Your task to perform on an android device: find photos in the google photos app Image 0: 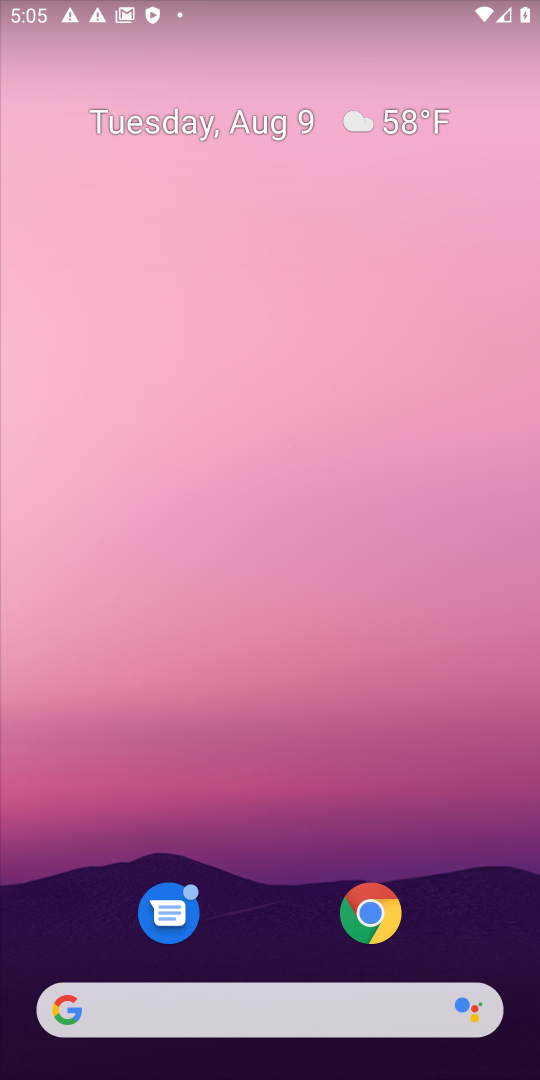
Step 0: drag from (299, 821) to (257, 271)
Your task to perform on an android device: find photos in the google photos app Image 1: 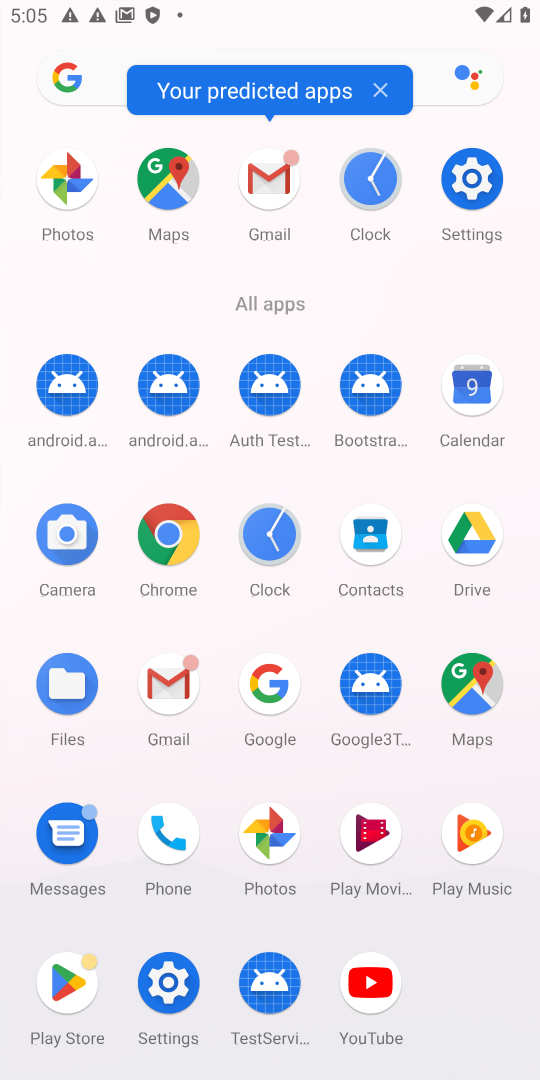
Step 1: click (257, 835)
Your task to perform on an android device: find photos in the google photos app Image 2: 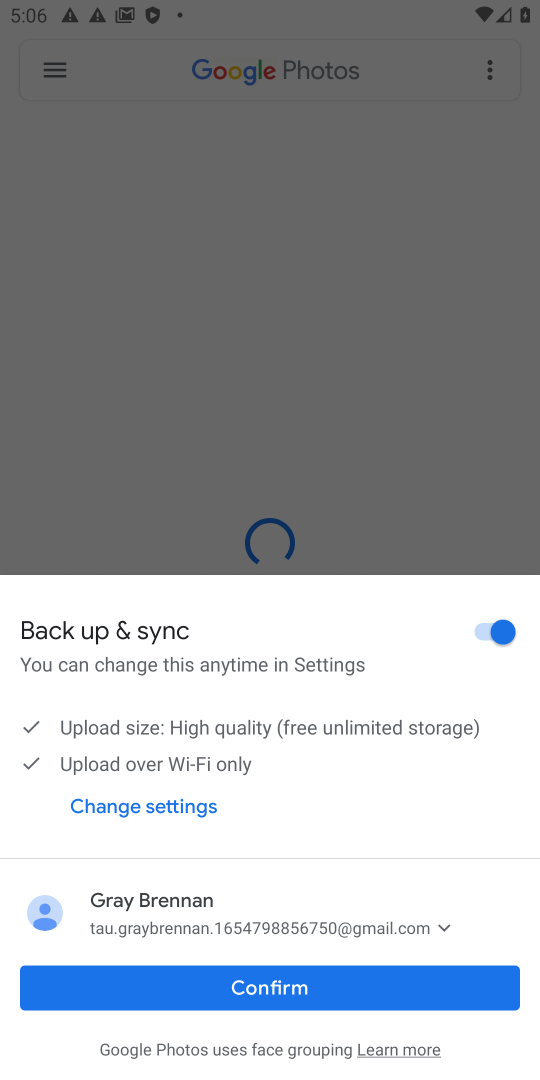
Step 2: click (235, 992)
Your task to perform on an android device: find photos in the google photos app Image 3: 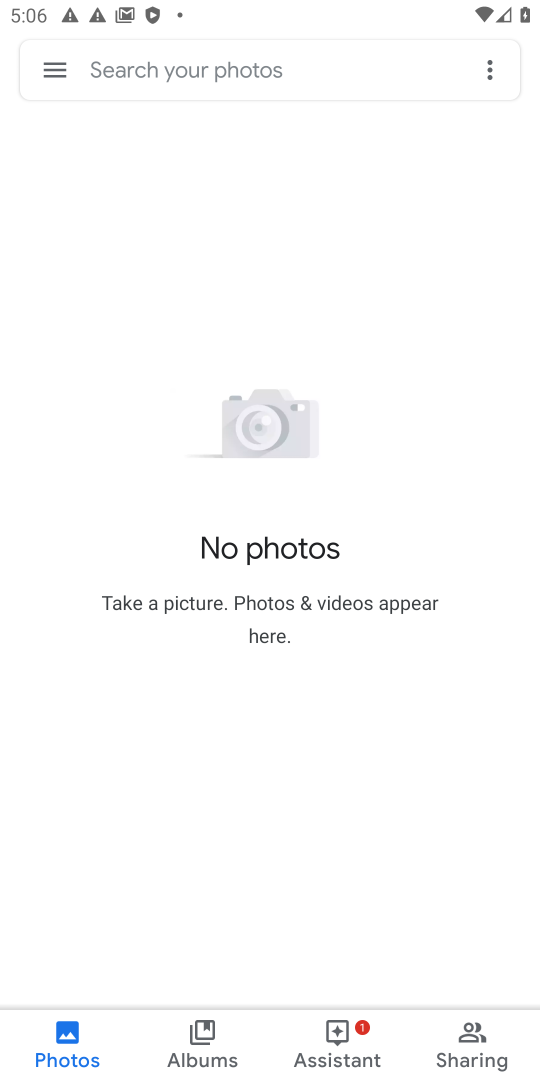
Step 3: task complete